Your task to perform on an android device: Open the calendar and show me this week's events? Image 0: 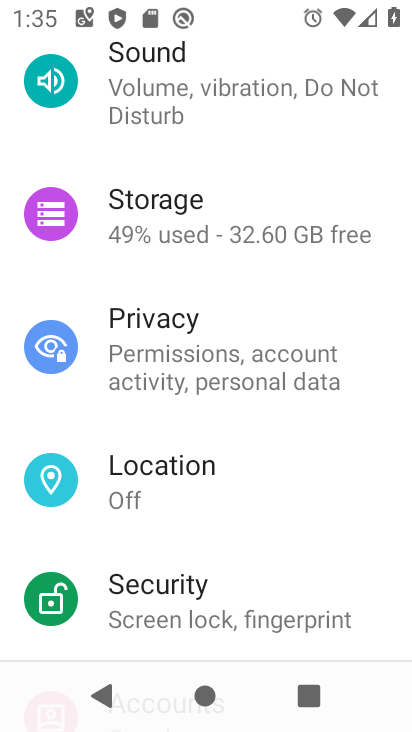
Step 0: press back button
Your task to perform on an android device: Open the calendar and show me this week's events? Image 1: 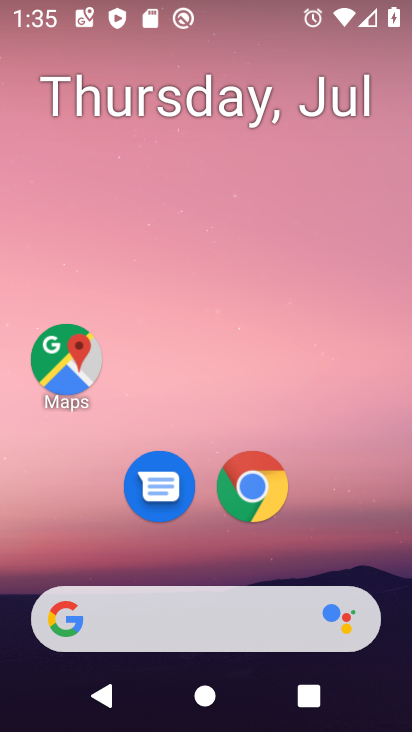
Step 1: drag from (117, 517) to (209, 0)
Your task to perform on an android device: Open the calendar and show me this week's events? Image 2: 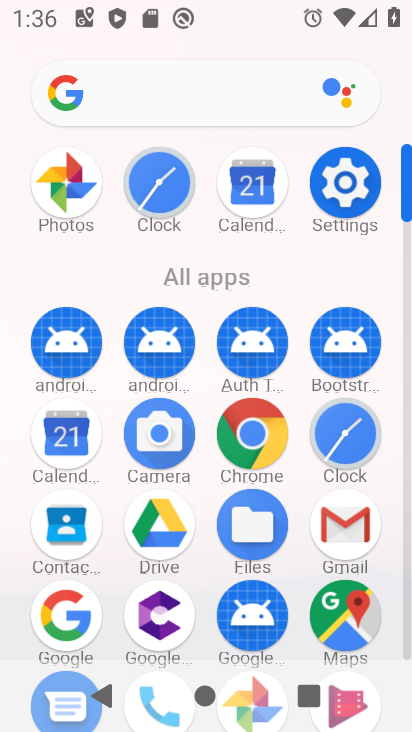
Step 2: click (64, 434)
Your task to perform on an android device: Open the calendar and show me this week's events? Image 3: 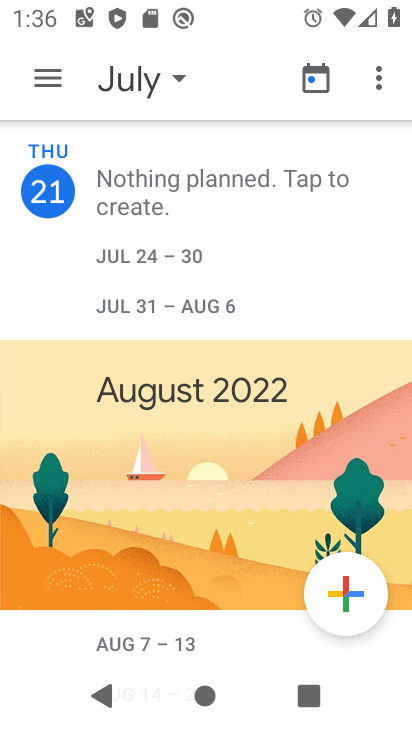
Step 3: click (150, 77)
Your task to perform on an android device: Open the calendar and show me this week's events? Image 4: 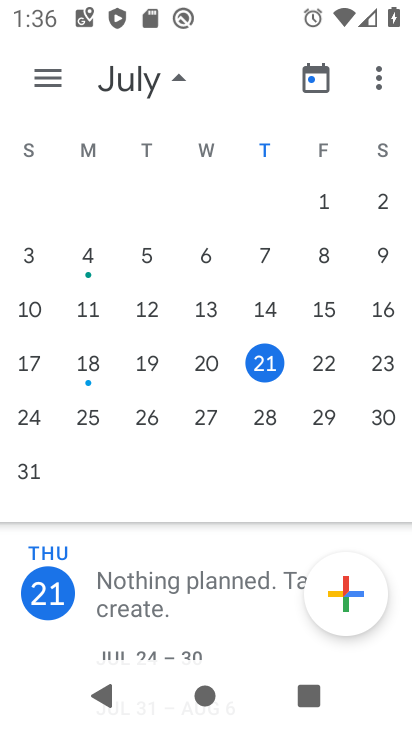
Step 4: task complete